Your task to perform on an android device: What is the recent news? Image 0: 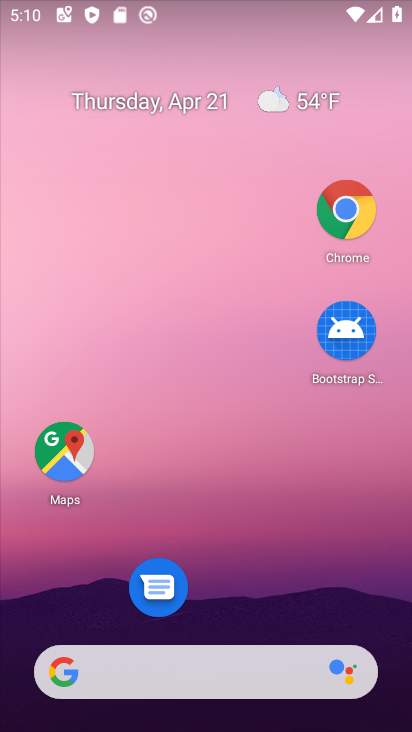
Step 0: drag from (330, 608) to (328, 105)
Your task to perform on an android device: What is the recent news? Image 1: 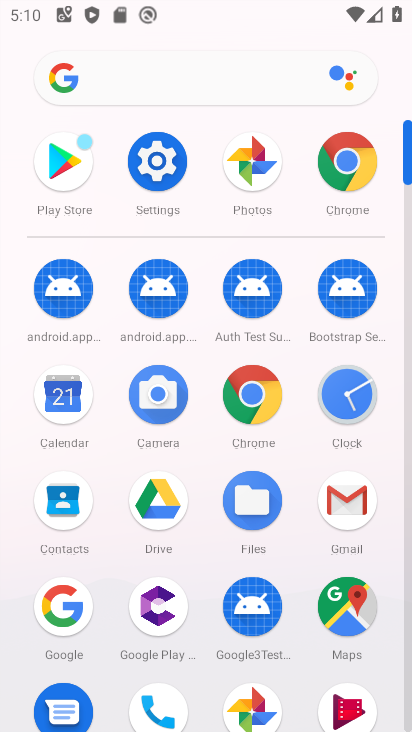
Step 1: click (346, 157)
Your task to perform on an android device: What is the recent news? Image 2: 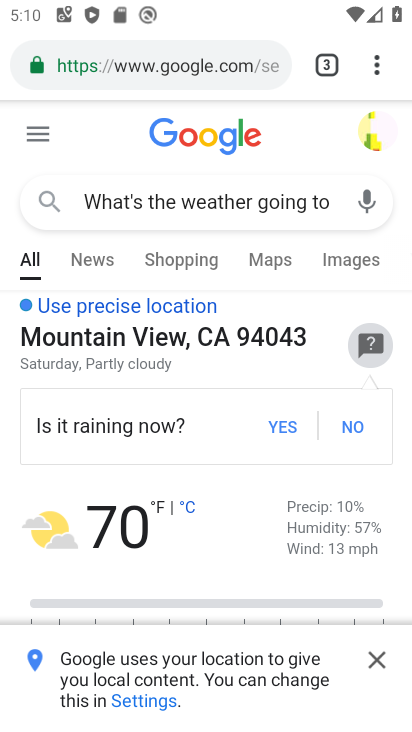
Step 2: drag from (373, 61) to (174, 199)
Your task to perform on an android device: What is the recent news? Image 3: 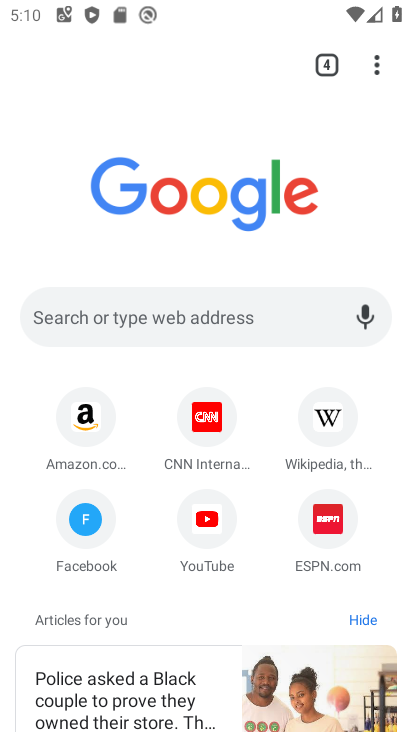
Step 3: click (261, 330)
Your task to perform on an android device: What is the recent news? Image 4: 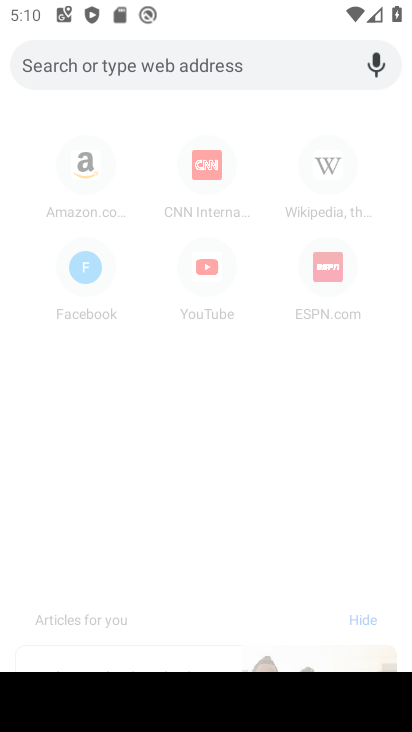
Step 4: type "recent news?"
Your task to perform on an android device: What is the recent news? Image 5: 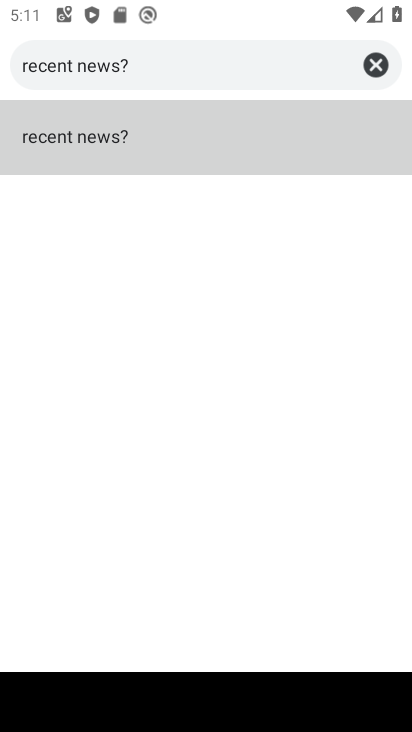
Step 5: click (100, 133)
Your task to perform on an android device: What is the recent news? Image 6: 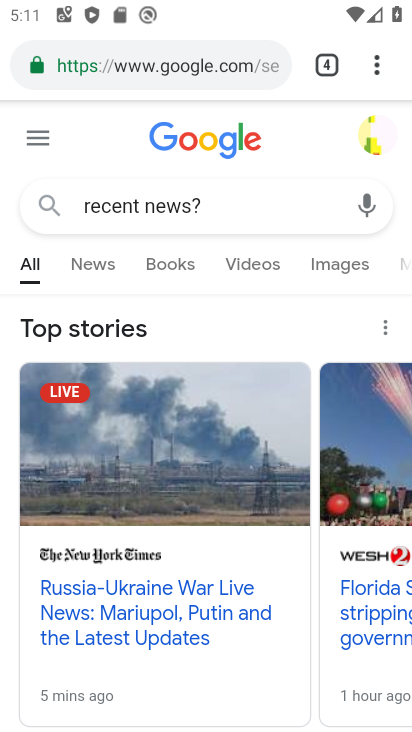
Step 6: click (99, 260)
Your task to perform on an android device: What is the recent news? Image 7: 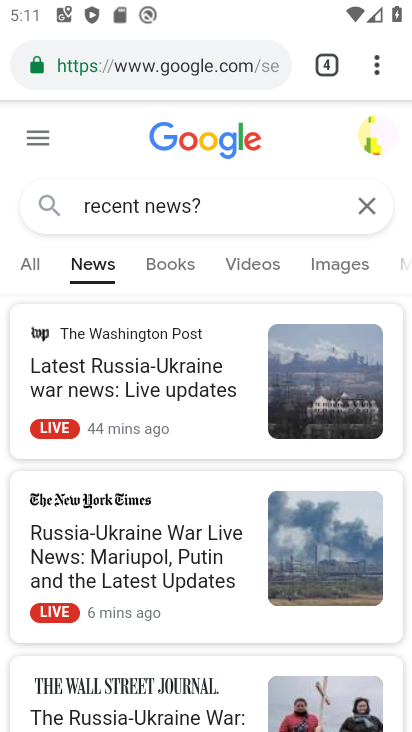
Step 7: task complete